Your task to perform on an android device: add a contact Image 0: 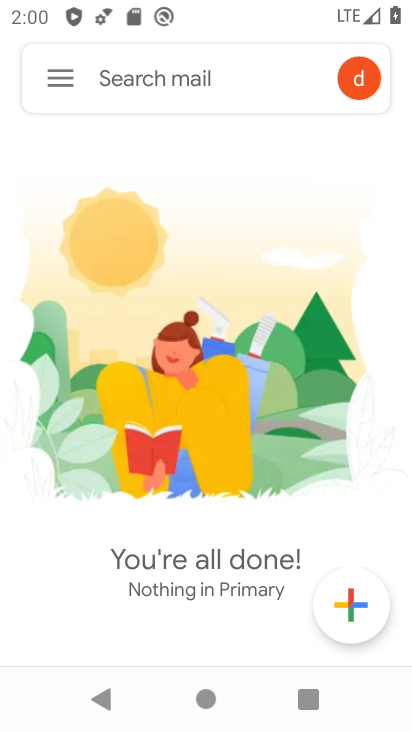
Step 0: press home button
Your task to perform on an android device: add a contact Image 1: 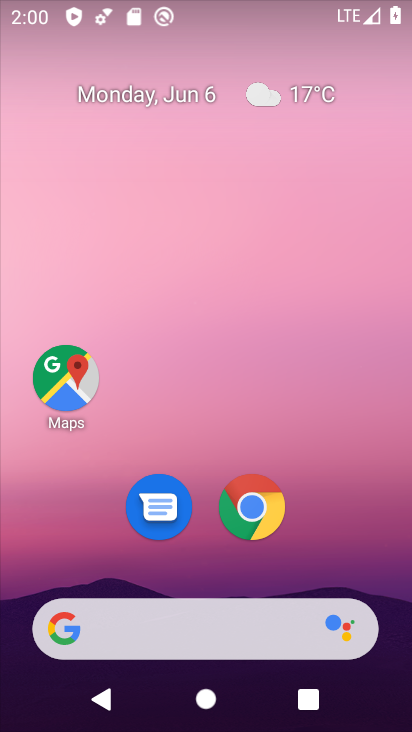
Step 1: drag from (372, 587) to (243, 145)
Your task to perform on an android device: add a contact Image 2: 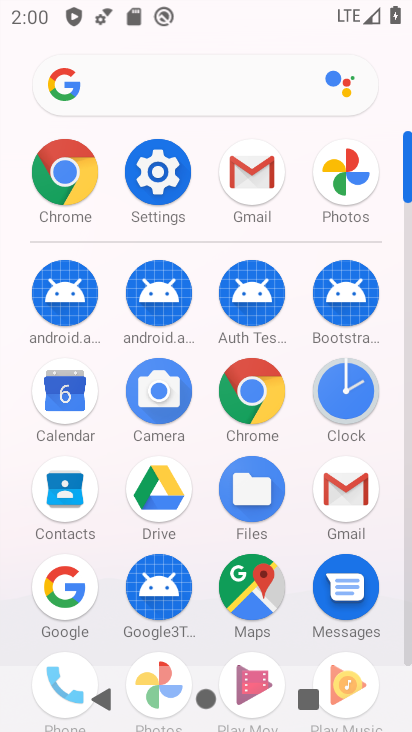
Step 2: click (82, 481)
Your task to perform on an android device: add a contact Image 3: 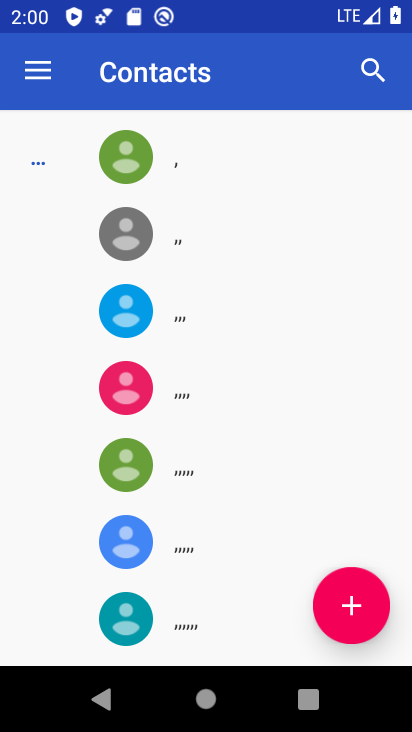
Step 3: click (353, 602)
Your task to perform on an android device: add a contact Image 4: 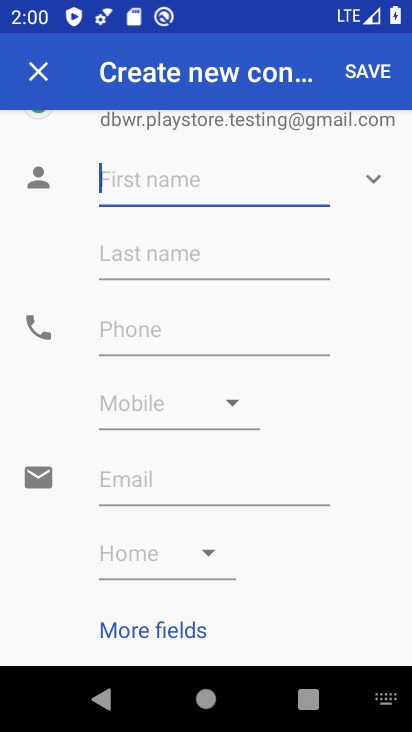
Step 4: click (205, 170)
Your task to perform on an android device: add a contact Image 5: 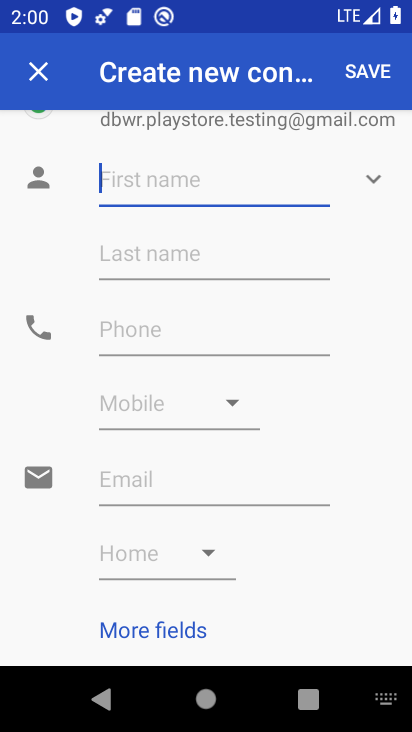
Step 5: type "vjvjjh j"
Your task to perform on an android device: add a contact Image 6: 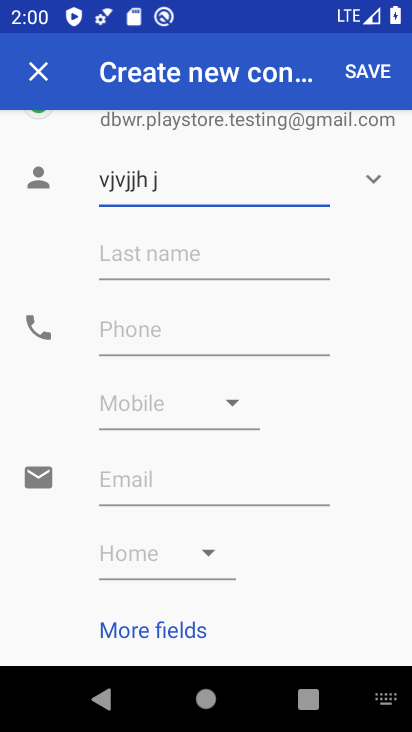
Step 6: click (258, 332)
Your task to perform on an android device: add a contact Image 7: 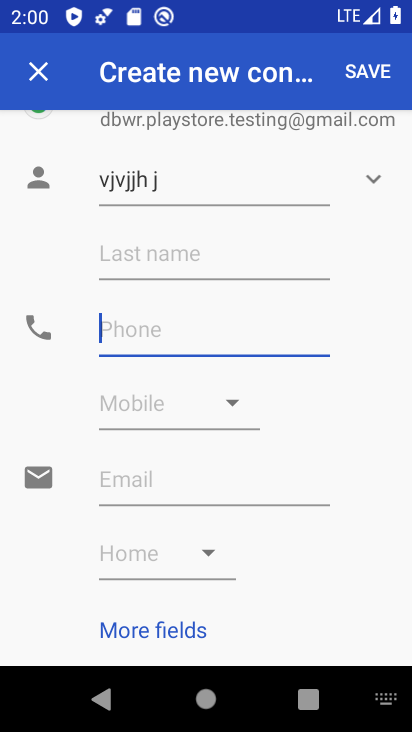
Step 7: type "789789"
Your task to perform on an android device: add a contact Image 8: 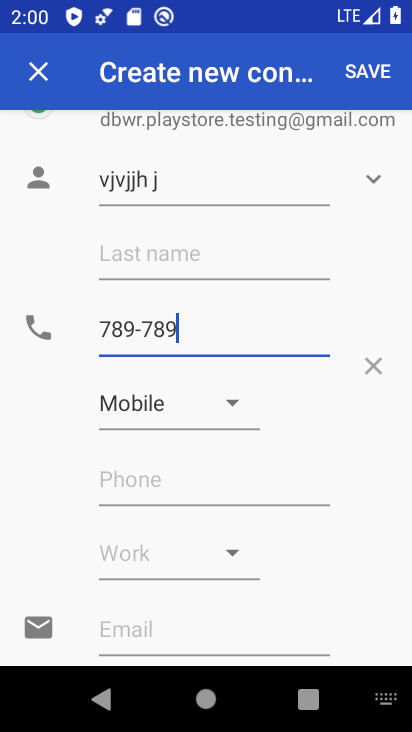
Step 8: click (380, 74)
Your task to perform on an android device: add a contact Image 9: 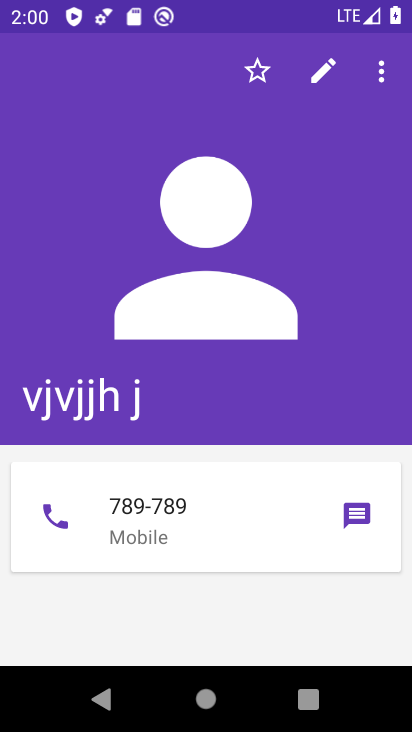
Step 9: task complete